Your task to perform on an android device: Open calendar and show me the first week of next month Image 0: 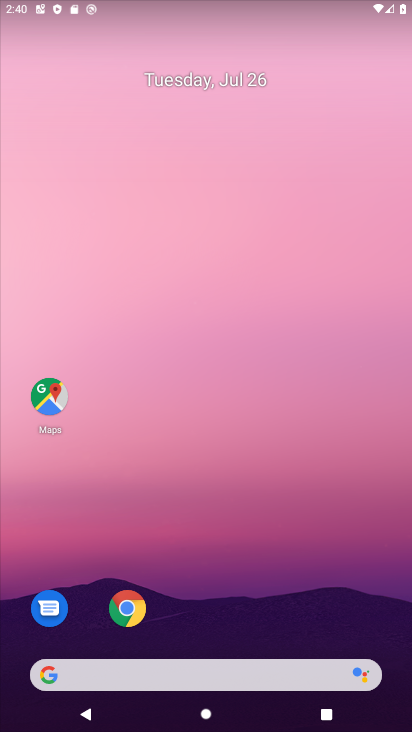
Step 0: drag from (265, 581) to (282, 127)
Your task to perform on an android device: Open calendar and show me the first week of next month Image 1: 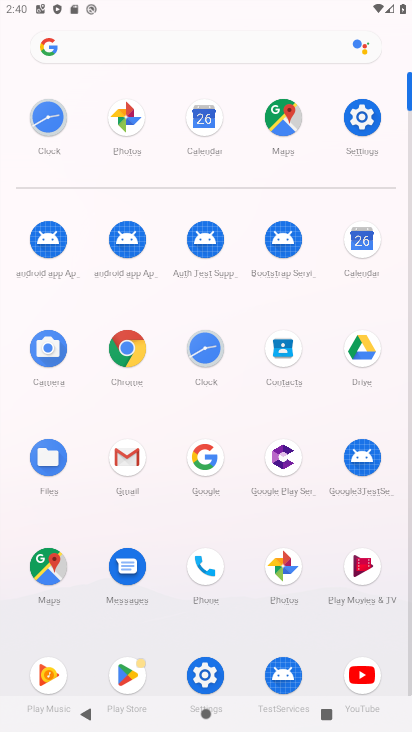
Step 1: click (359, 252)
Your task to perform on an android device: Open calendar and show me the first week of next month Image 2: 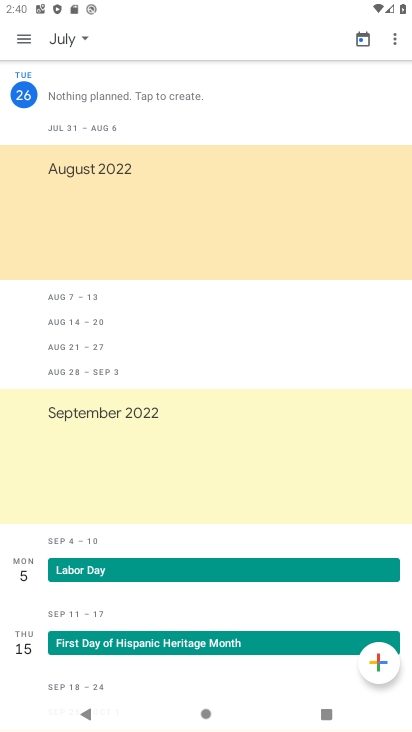
Step 2: task complete